Your task to perform on an android device: Go to Reddit.com Image 0: 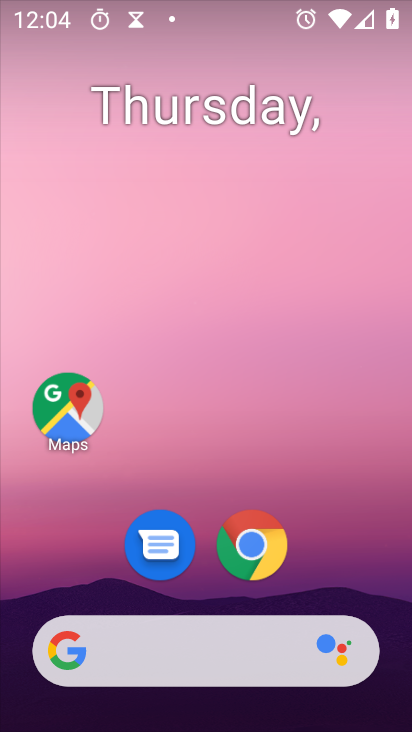
Step 0: press home button
Your task to perform on an android device: Go to Reddit.com Image 1: 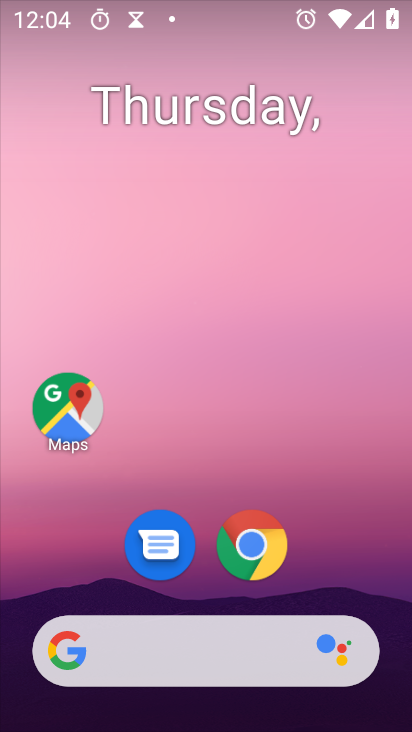
Step 1: click (266, 560)
Your task to perform on an android device: Go to Reddit.com Image 2: 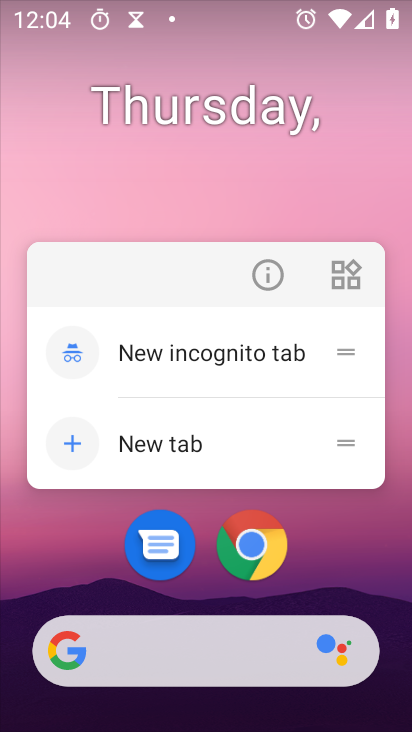
Step 2: click (272, 546)
Your task to perform on an android device: Go to Reddit.com Image 3: 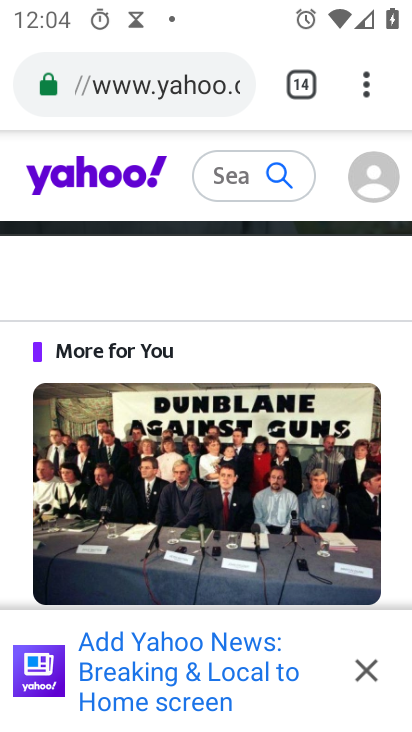
Step 3: drag from (370, 86) to (146, 162)
Your task to perform on an android device: Go to Reddit.com Image 4: 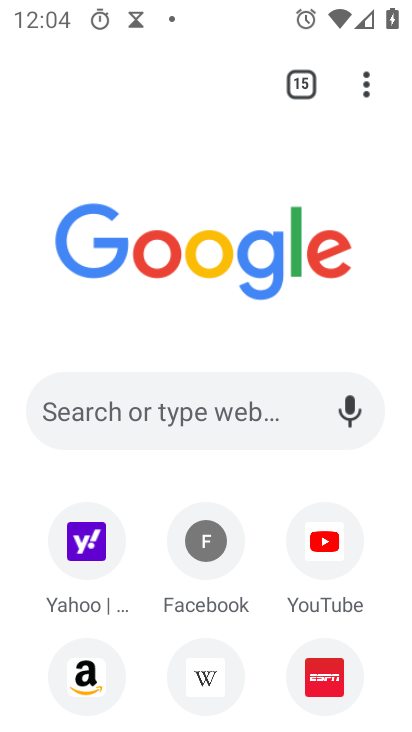
Step 4: click (142, 401)
Your task to perform on an android device: Go to Reddit.com Image 5: 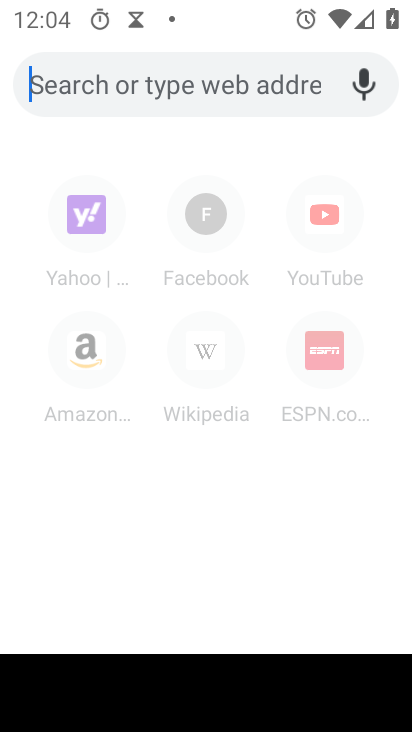
Step 5: type "reddit.com"
Your task to perform on an android device: Go to Reddit.com Image 6: 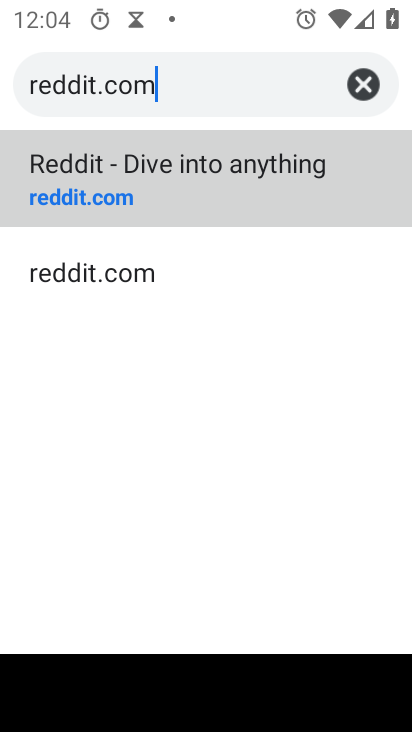
Step 6: click (138, 157)
Your task to perform on an android device: Go to Reddit.com Image 7: 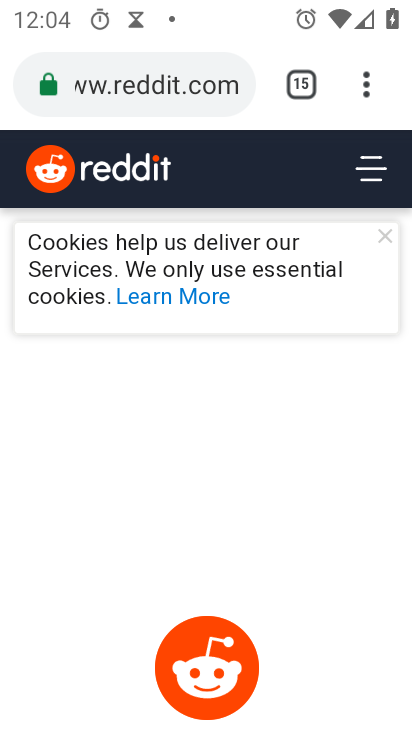
Step 7: task complete